Your task to perform on an android device: Open eBay Image 0: 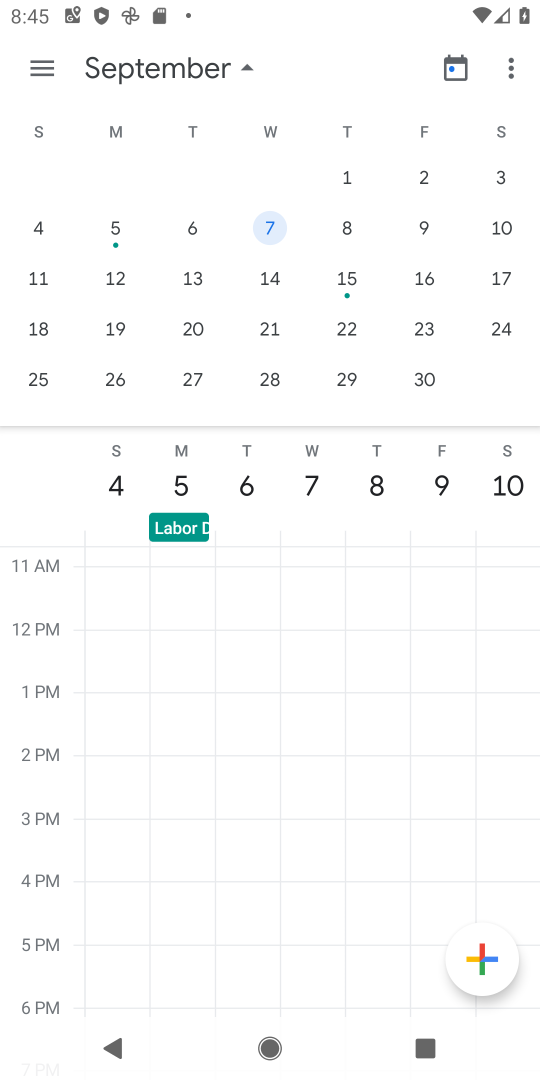
Step 0: press home button
Your task to perform on an android device: Open eBay Image 1: 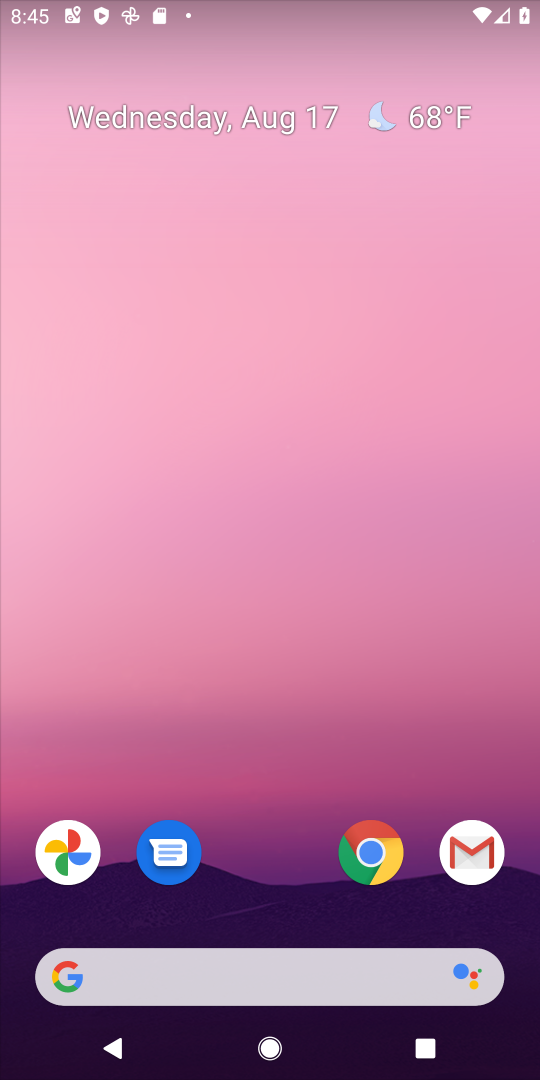
Step 1: click (367, 849)
Your task to perform on an android device: Open eBay Image 2: 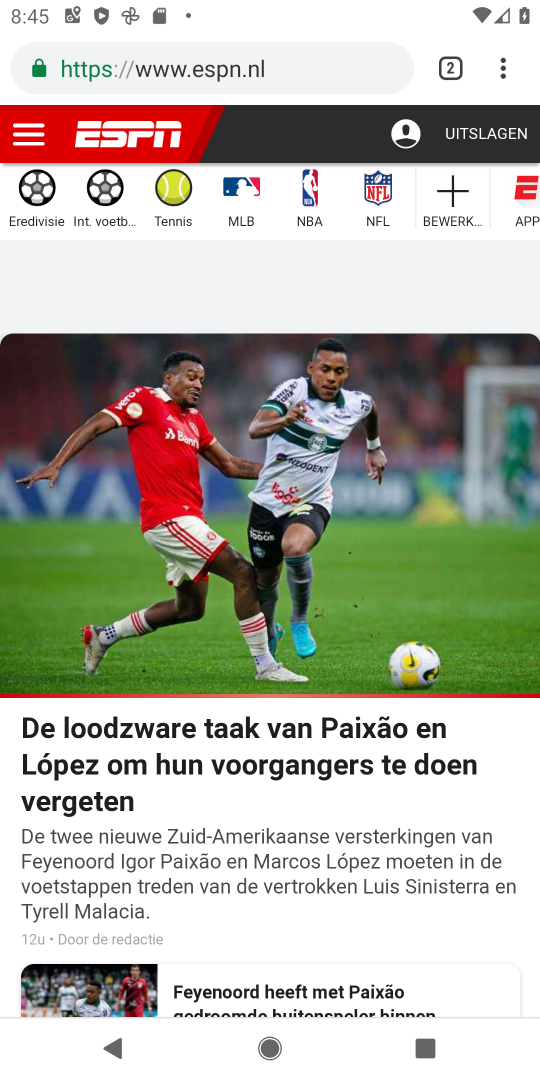
Step 2: click (511, 67)
Your task to perform on an android device: Open eBay Image 3: 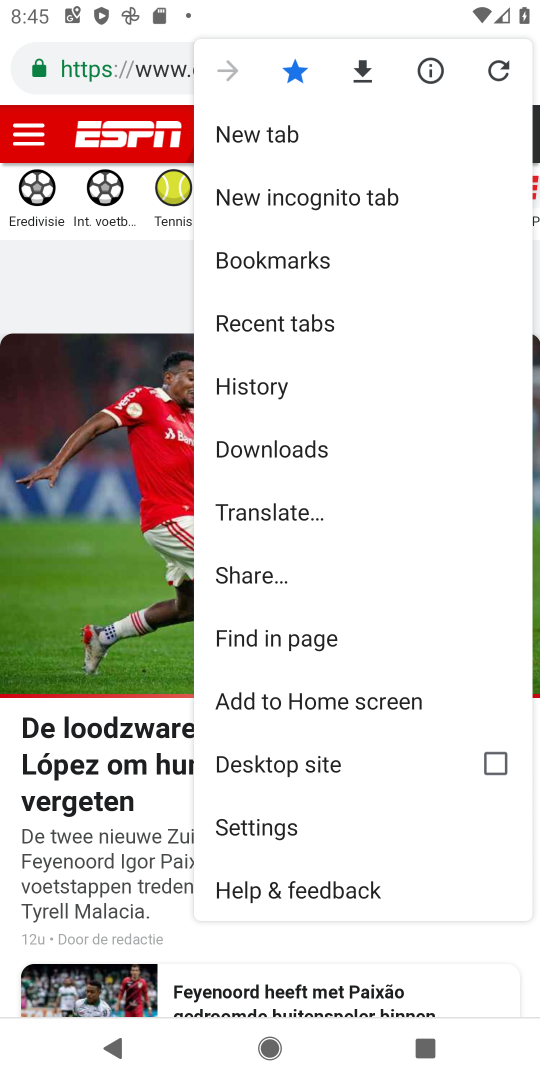
Step 3: click (280, 137)
Your task to perform on an android device: Open eBay Image 4: 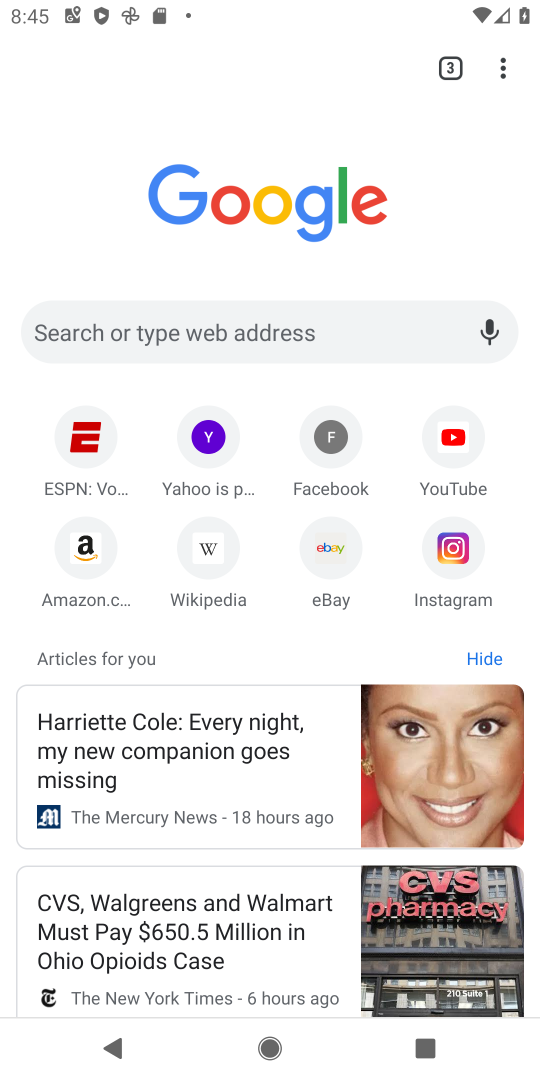
Step 4: click (322, 558)
Your task to perform on an android device: Open eBay Image 5: 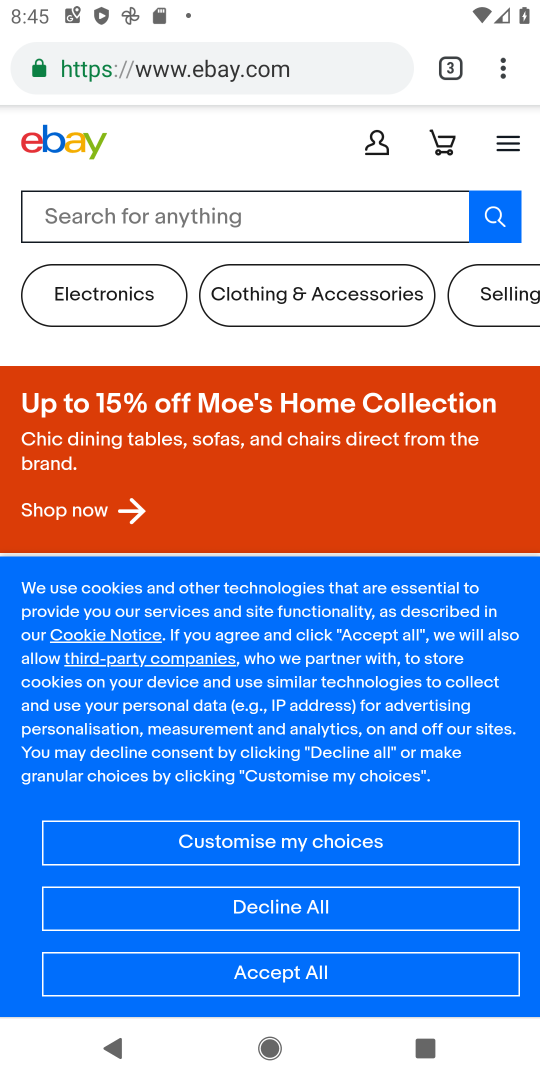
Step 5: task complete